Your task to perform on an android device: toggle wifi Image 0: 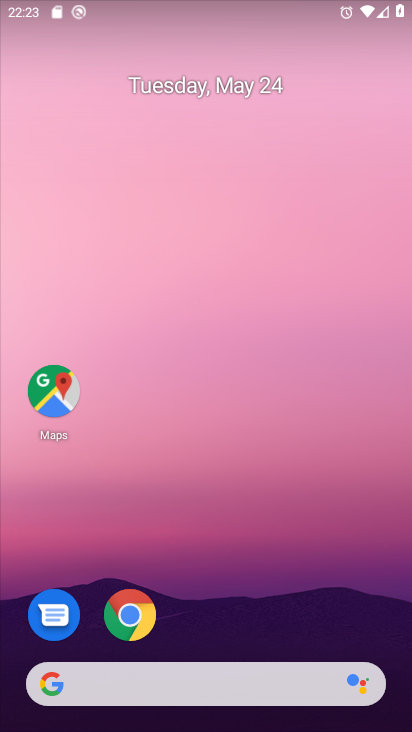
Step 0: drag from (241, 588) to (279, 240)
Your task to perform on an android device: toggle wifi Image 1: 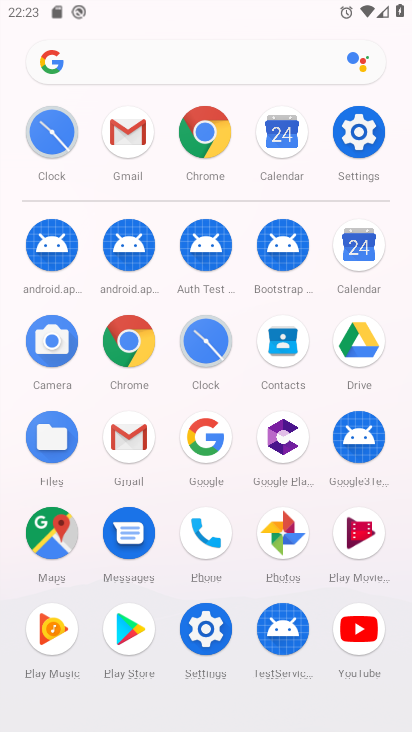
Step 1: click (365, 122)
Your task to perform on an android device: toggle wifi Image 2: 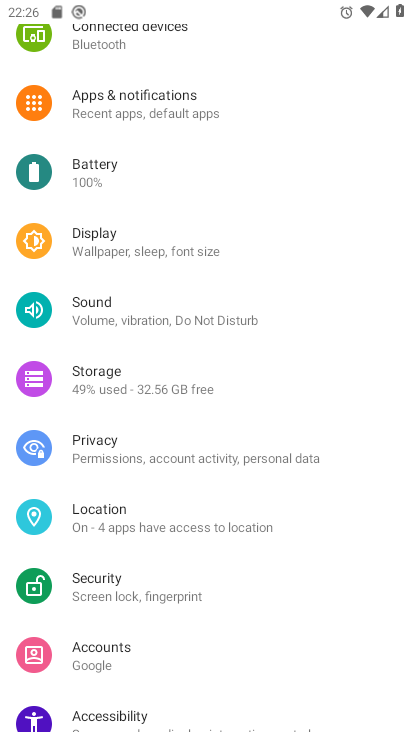
Step 2: drag from (157, 75) to (182, 434)
Your task to perform on an android device: toggle wifi Image 3: 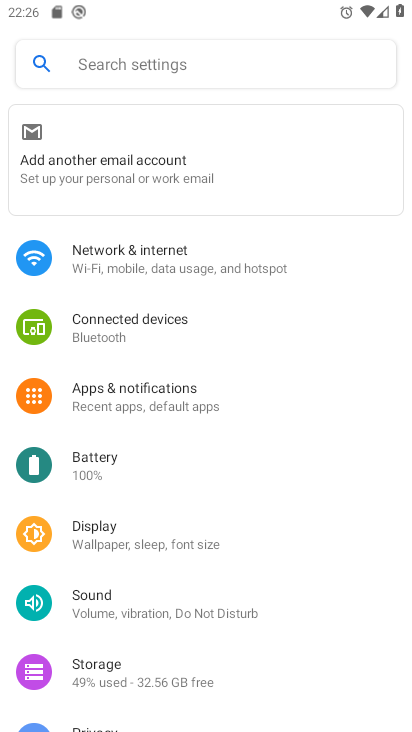
Step 3: click (165, 267)
Your task to perform on an android device: toggle wifi Image 4: 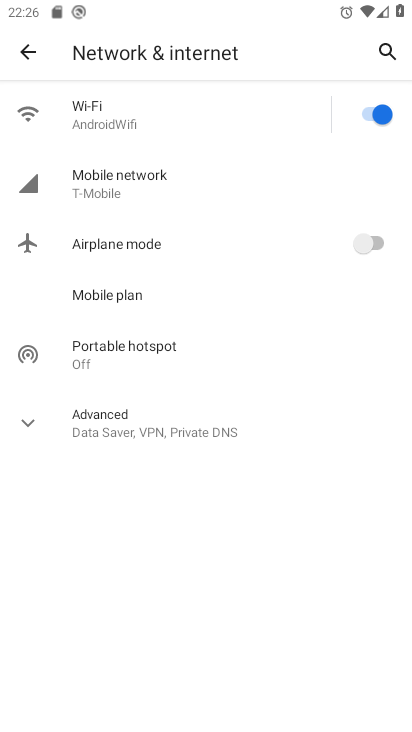
Step 4: click (374, 93)
Your task to perform on an android device: toggle wifi Image 5: 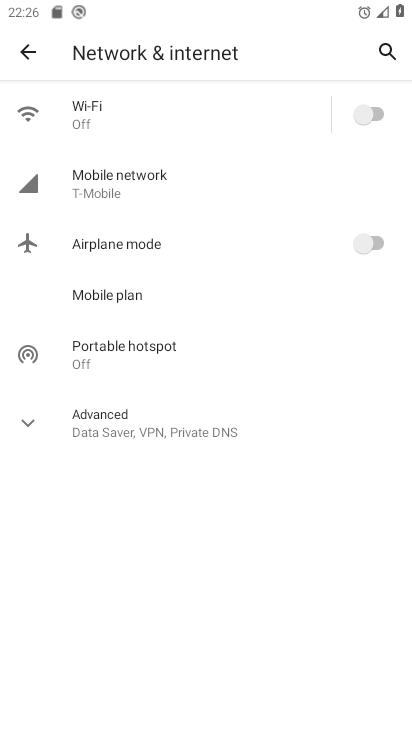
Step 5: task complete